Your task to perform on an android device: refresh tabs in the chrome app Image 0: 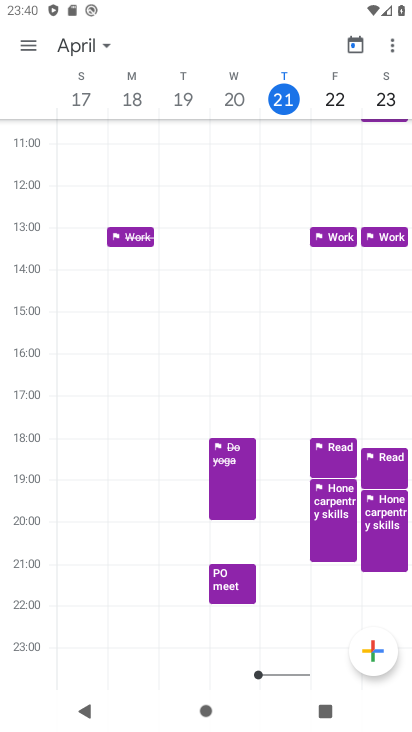
Step 0: press home button
Your task to perform on an android device: refresh tabs in the chrome app Image 1: 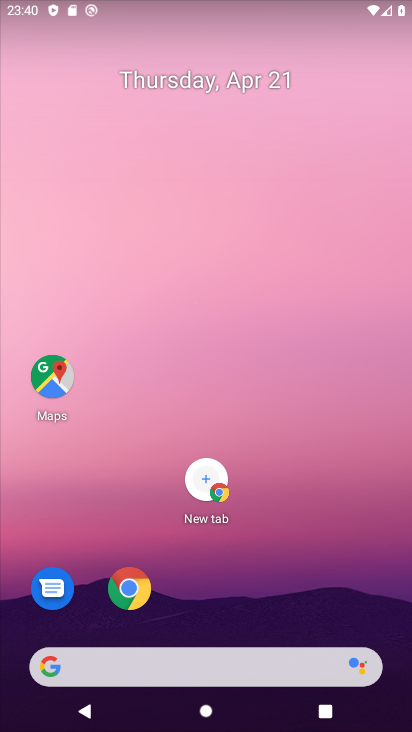
Step 1: drag from (199, 566) to (267, 159)
Your task to perform on an android device: refresh tabs in the chrome app Image 2: 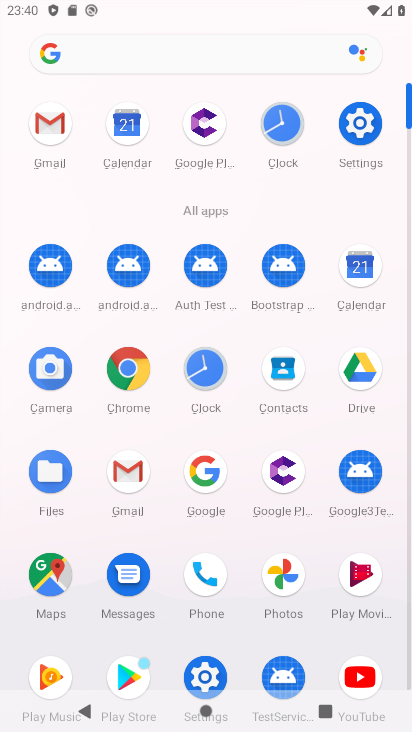
Step 2: click (130, 362)
Your task to perform on an android device: refresh tabs in the chrome app Image 3: 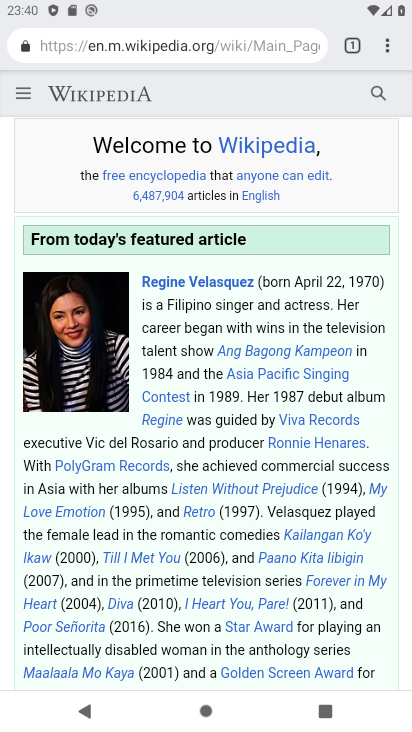
Step 3: click (387, 41)
Your task to perform on an android device: refresh tabs in the chrome app Image 4: 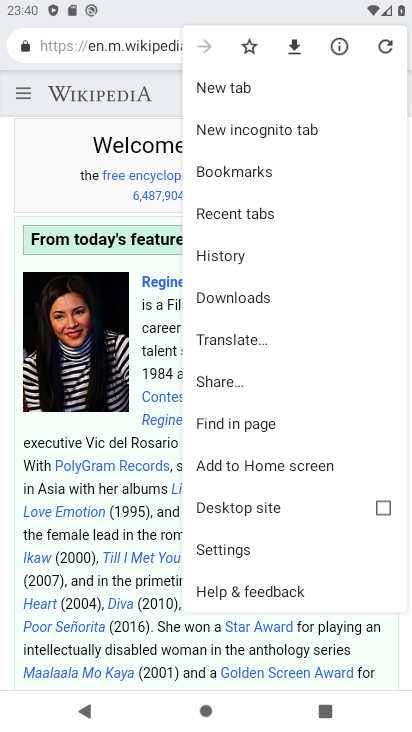
Step 4: click (386, 47)
Your task to perform on an android device: refresh tabs in the chrome app Image 5: 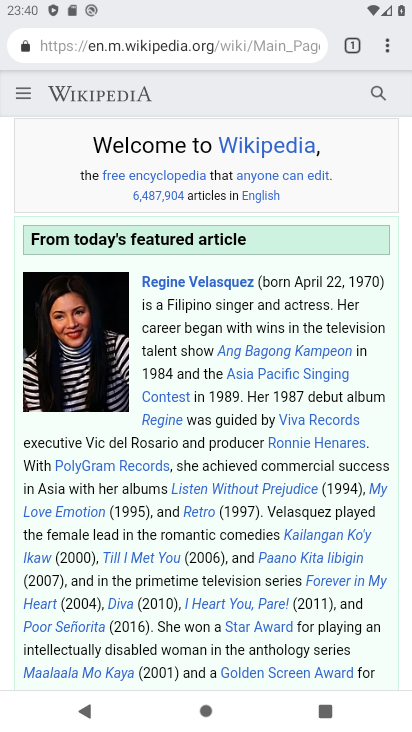
Step 5: task complete